Your task to perform on an android device: turn vacation reply on in the gmail app Image 0: 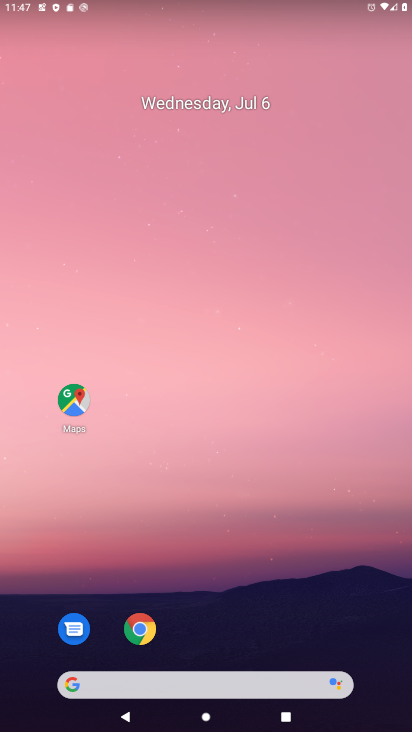
Step 0: drag from (201, 634) to (207, 140)
Your task to perform on an android device: turn vacation reply on in the gmail app Image 1: 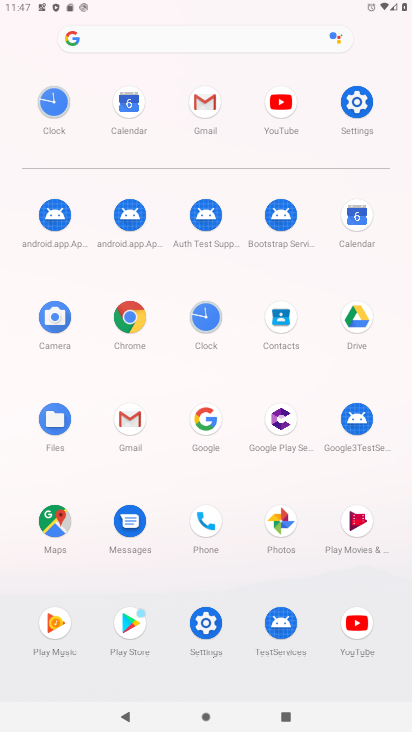
Step 1: click (204, 129)
Your task to perform on an android device: turn vacation reply on in the gmail app Image 2: 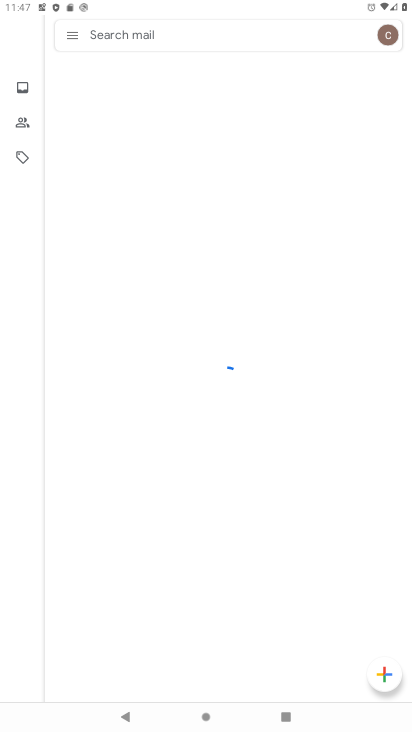
Step 2: click (73, 35)
Your task to perform on an android device: turn vacation reply on in the gmail app Image 3: 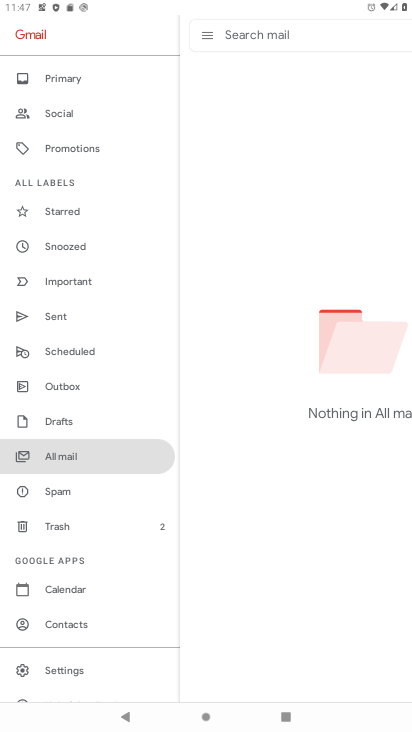
Step 3: click (82, 659)
Your task to perform on an android device: turn vacation reply on in the gmail app Image 4: 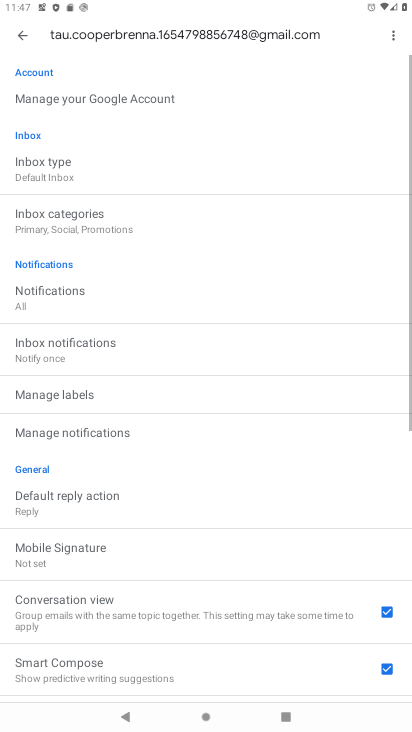
Step 4: drag from (182, 577) to (203, 262)
Your task to perform on an android device: turn vacation reply on in the gmail app Image 5: 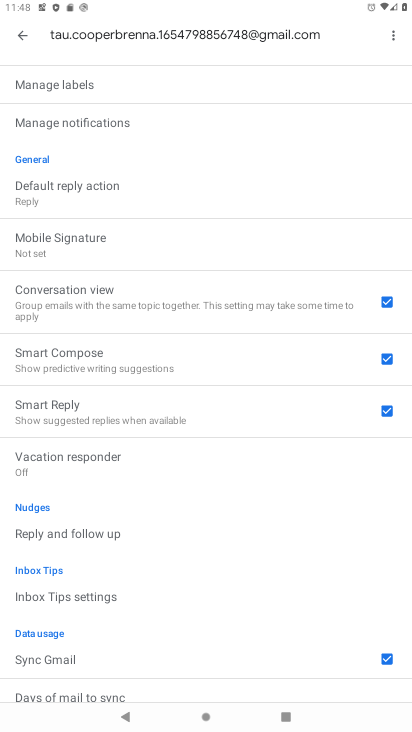
Step 5: click (134, 465)
Your task to perform on an android device: turn vacation reply on in the gmail app Image 6: 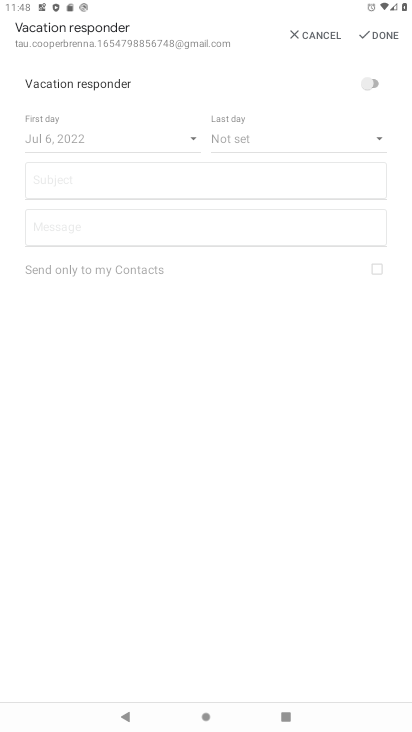
Step 6: click (377, 88)
Your task to perform on an android device: turn vacation reply on in the gmail app Image 7: 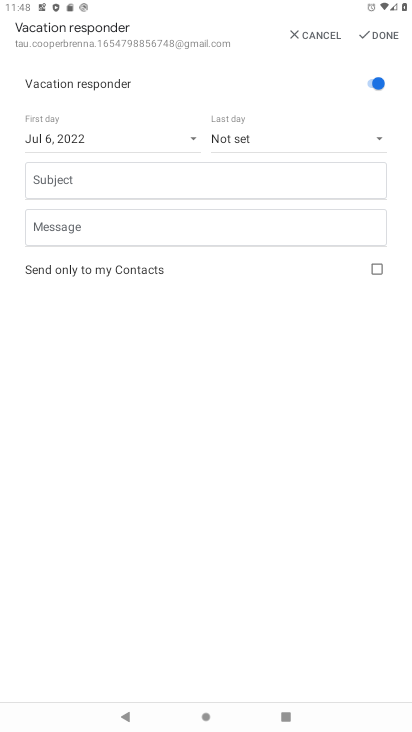
Step 7: task complete